Your task to perform on an android device: Go to ESPN.com Image 0: 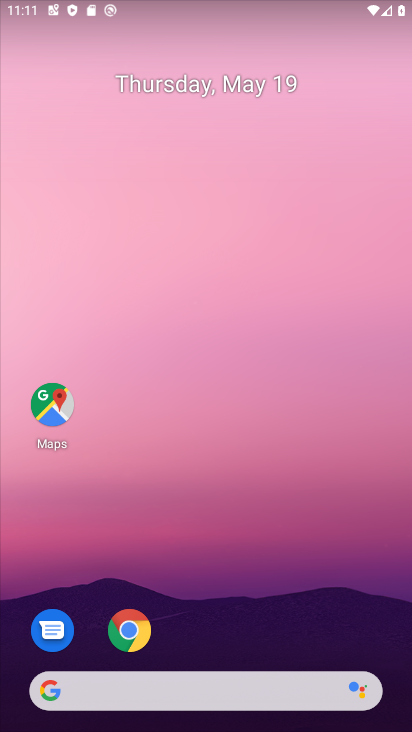
Step 0: click (128, 633)
Your task to perform on an android device: Go to ESPN.com Image 1: 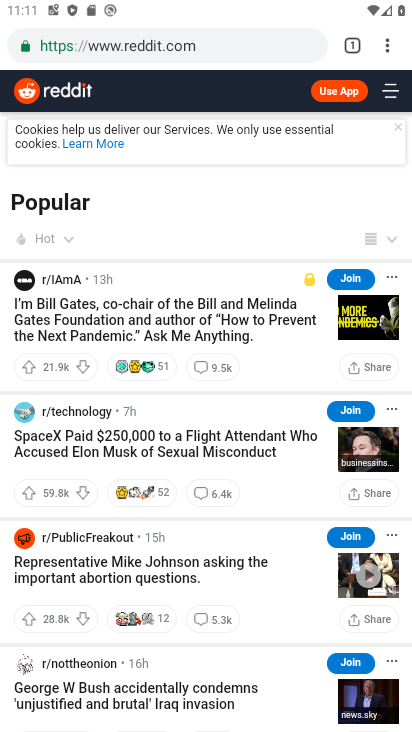
Step 1: click (252, 42)
Your task to perform on an android device: Go to ESPN.com Image 2: 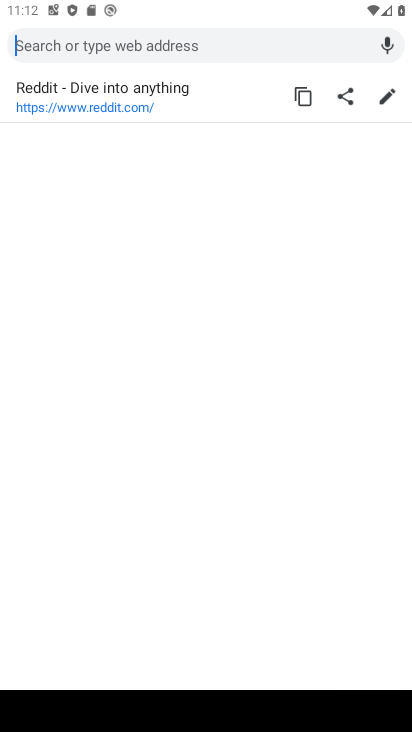
Step 2: type "ESPN.com"
Your task to perform on an android device: Go to ESPN.com Image 3: 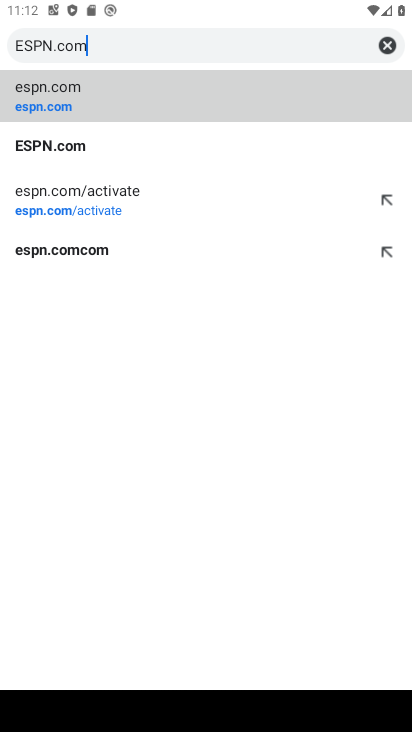
Step 3: type ""
Your task to perform on an android device: Go to ESPN.com Image 4: 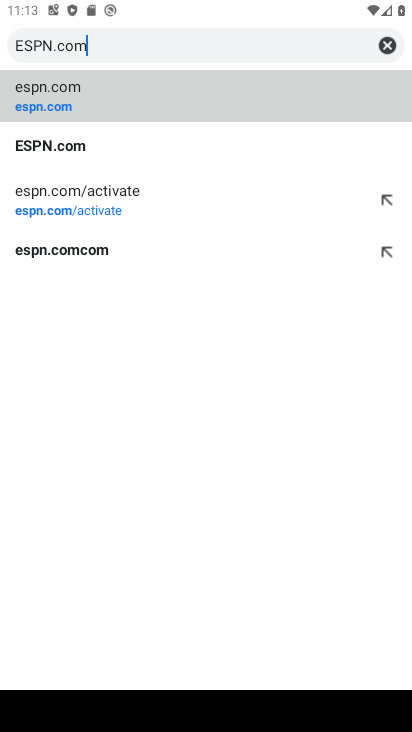
Step 4: click (37, 148)
Your task to perform on an android device: Go to ESPN.com Image 5: 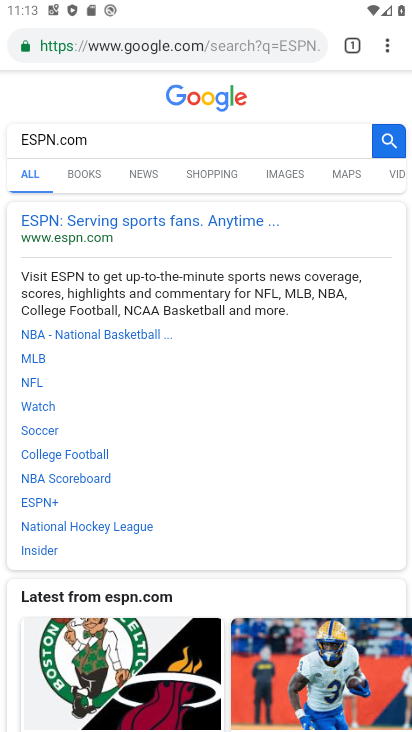
Step 5: click (105, 243)
Your task to perform on an android device: Go to ESPN.com Image 6: 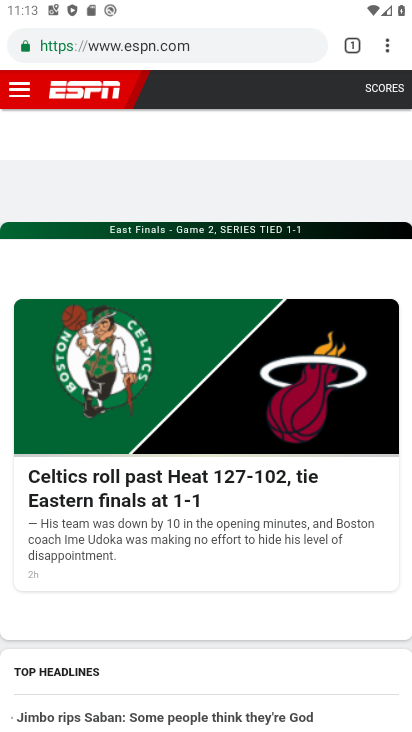
Step 6: task complete